Your task to perform on an android device: Open Chrome and go to the settings page Image 0: 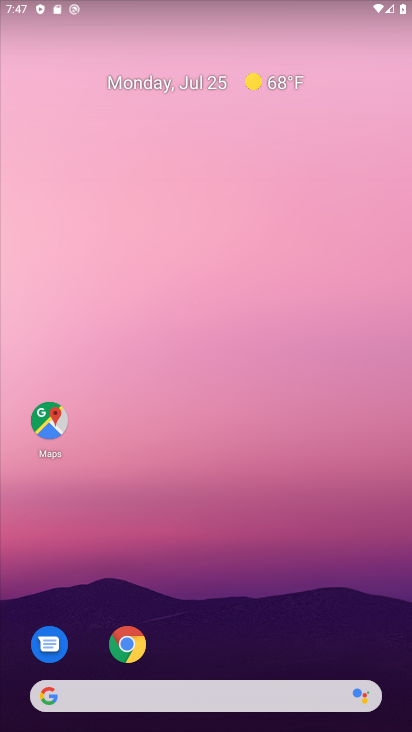
Step 0: drag from (239, 652) to (181, 13)
Your task to perform on an android device: Open Chrome and go to the settings page Image 1: 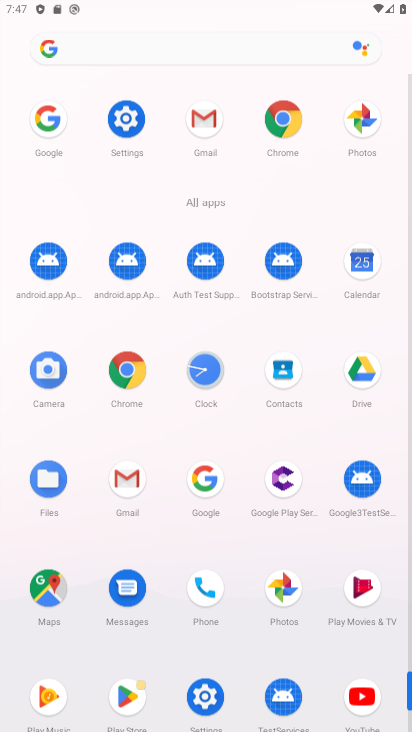
Step 1: drag from (223, 485) to (156, 91)
Your task to perform on an android device: Open Chrome and go to the settings page Image 2: 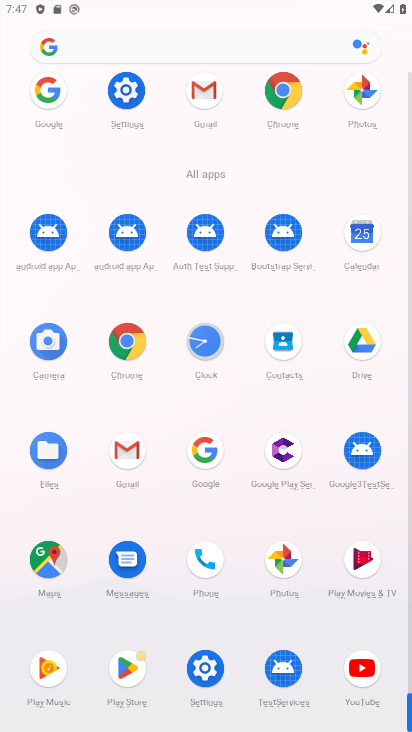
Step 2: click (117, 73)
Your task to perform on an android device: Open Chrome and go to the settings page Image 3: 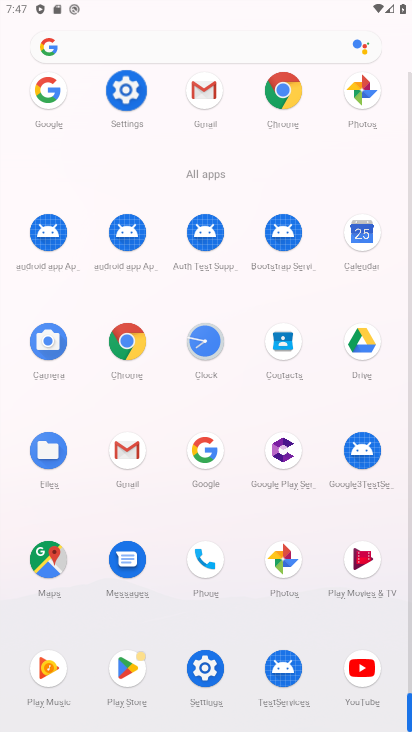
Step 3: click (120, 83)
Your task to perform on an android device: Open Chrome and go to the settings page Image 4: 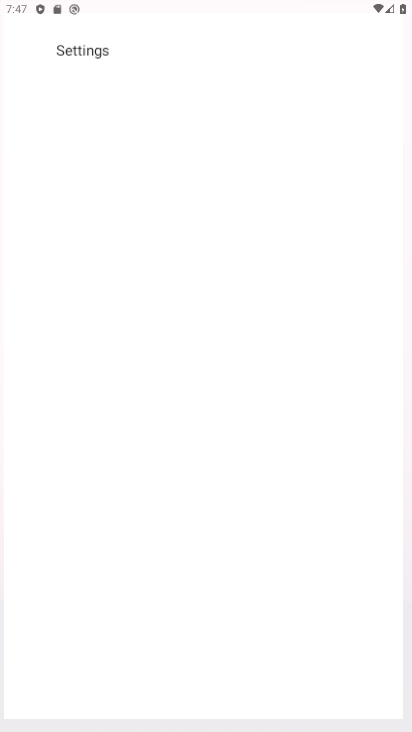
Step 4: click (120, 83)
Your task to perform on an android device: Open Chrome and go to the settings page Image 5: 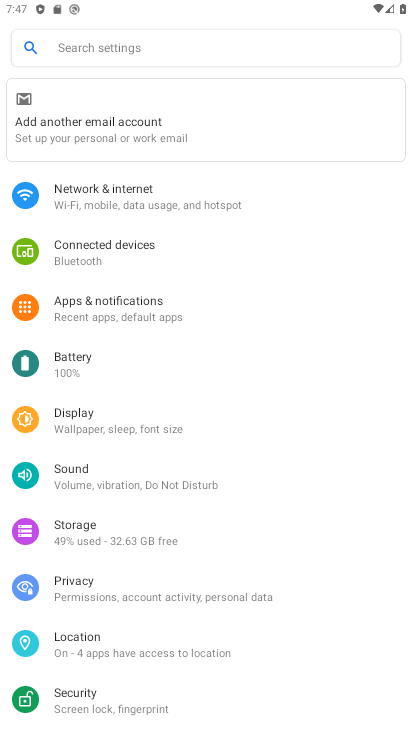
Step 5: press back button
Your task to perform on an android device: Open Chrome and go to the settings page Image 6: 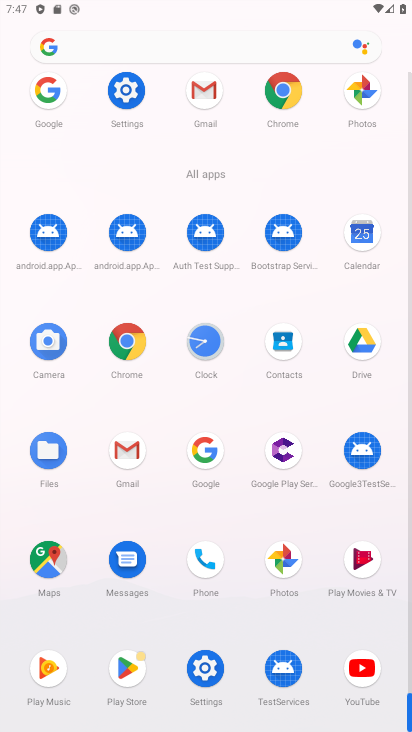
Step 6: click (277, 104)
Your task to perform on an android device: Open Chrome and go to the settings page Image 7: 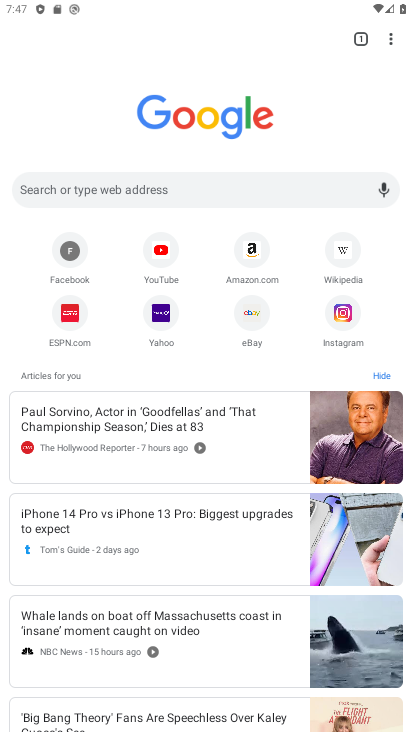
Step 7: task complete